Your task to perform on an android device: Open Chrome and go to settings Image 0: 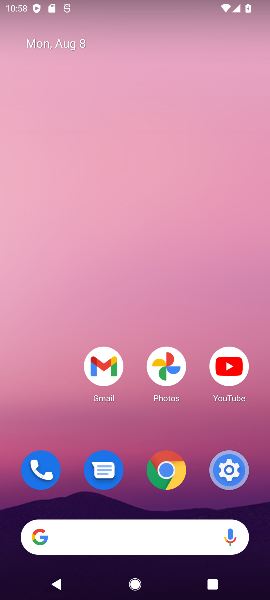
Step 0: click (170, 463)
Your task to perform on an android device: Open Chrome and go to settings Image 1: 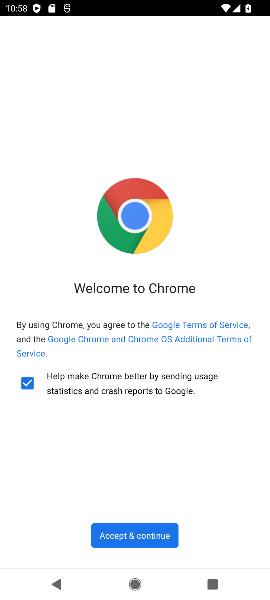
Step 1: click (141, 539)
Your task to perform on an android device: Open Chrome and go to settings Image 2: 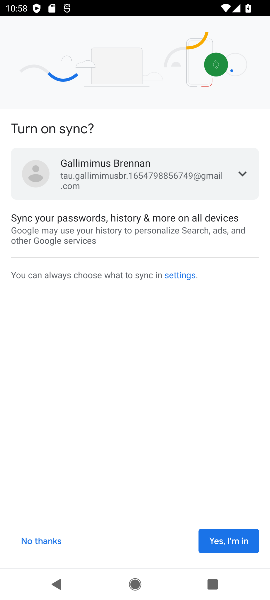
Step 2: click (231, 543)
Your task to perform on an android device: Open Chrome and go to settings Image 3: 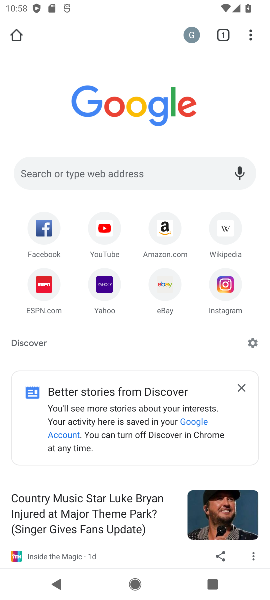
Step 3: click (253, 37)
Your task to perform on an android device: Open Chrome and go to settings Image 4: 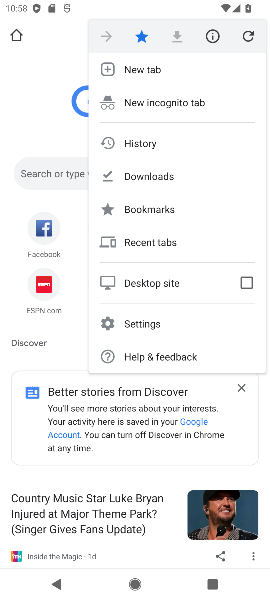
Step 4: click (145, 325)
Your task to perform on an android device: Open Chrome and go to settings Image 5: 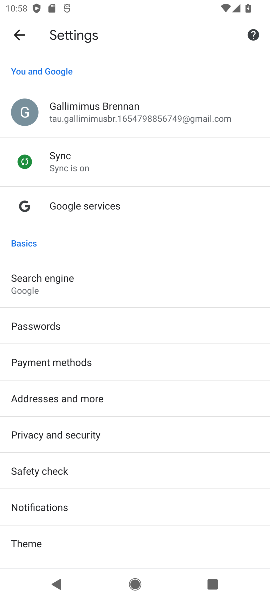
Step 5: task complete